Your task to perform on an android device: uninstall "Spotify" Image 0: 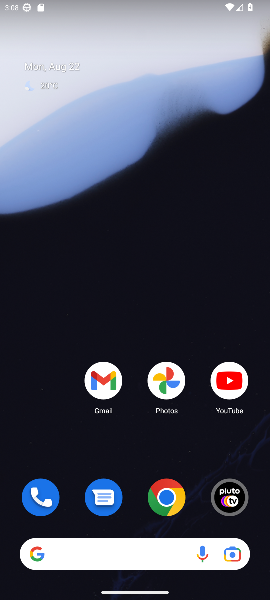
Step 0: press home button
Your task to perform on an android device: uninstall "Spotify" Image 1: 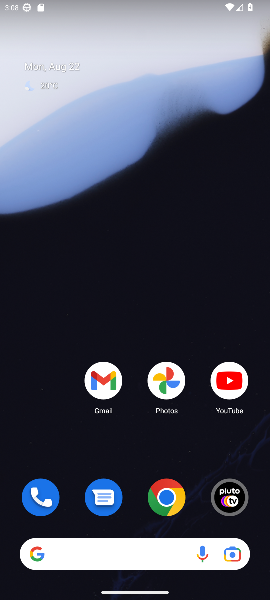
Step 1: drag from (55, 446) to (56, 105)
Your task to perform on an android device: uninstall "Spotify" Image 2: 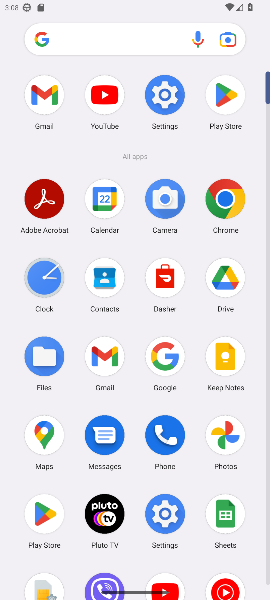
Step 2: click (224, 97)
Your task to perform on an android device: uninstall "Spotify" Image 3: 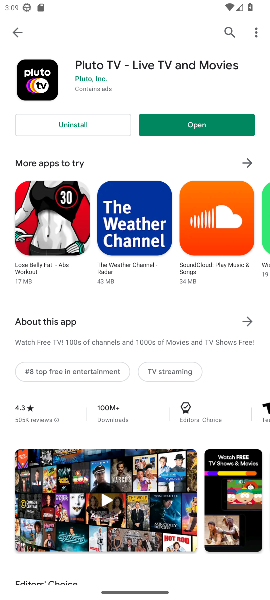
Step 3: press back button
Your task to perform on an android device: uninstall "Spotify" Image 4: 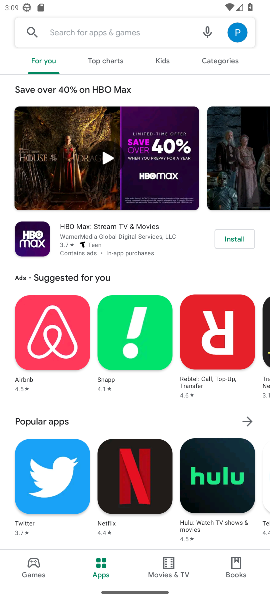
Step 4: click (143, 30)
Your task to perform on an android device: uninstall "Spotify" Image 5: 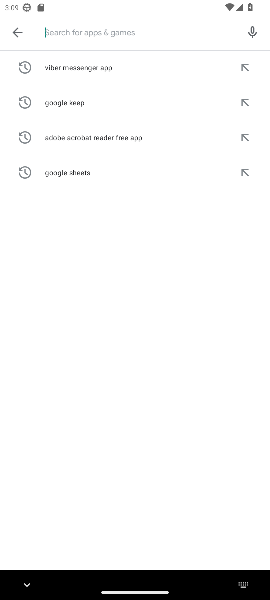
Step 5: type "spotifty"
Your task to perform on an android device: uninstall "Spotify" Image 6: 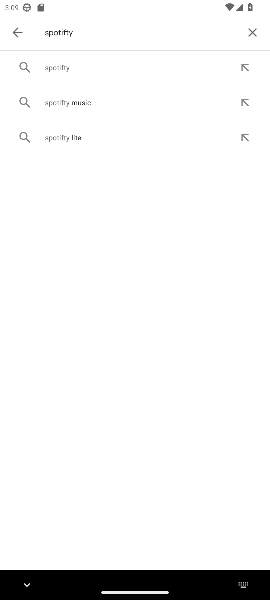
Step 6: click (72, 69)
Your task to perform on an android device: uninstall "Spotify" Image 7: 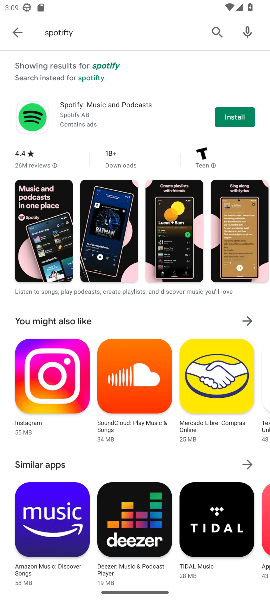
Step 7: task complete